Your task to perform on an android device: When is my next meeting? Image 0: 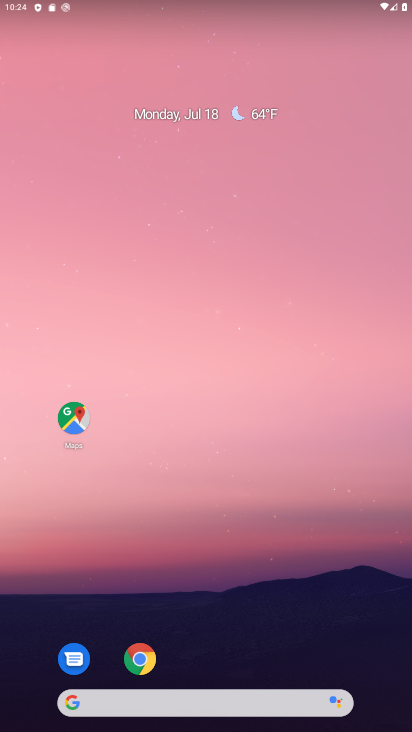
Step 0: drag from (206, 661) to (205, 142)
Your task to perform on an android device: When is my next meeting? Image 1: 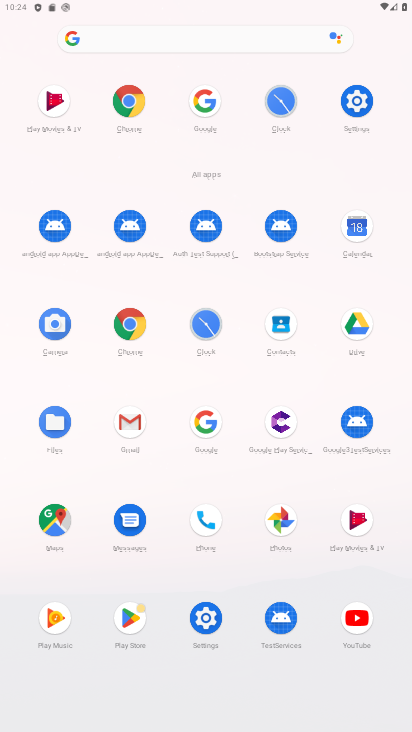
Step 1: click (359, 223)
Your task to perform on an android device: When is my next meeting? Image 2: 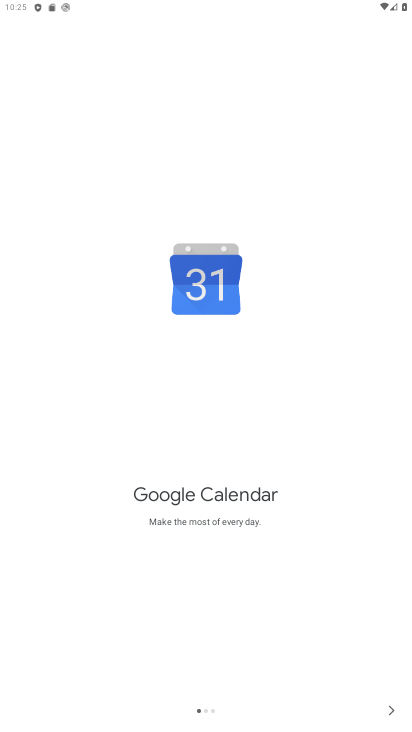
Step 2: click (387, 713)
Your task to perform on an android device: When is my next meeting? Image 3: 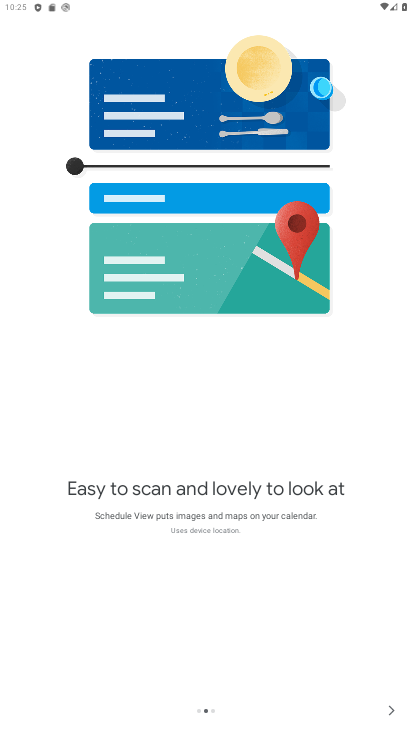
Step 3: click (387, 713)
Your task to perform on an android device: When is my next meeting? Image 4: 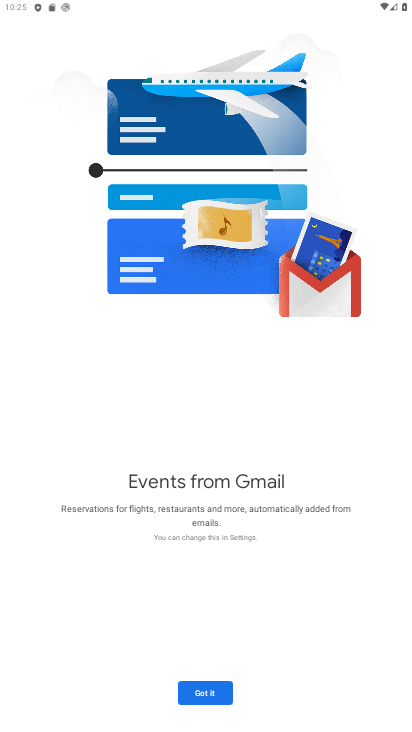
Step 4: click (208, 696)
Your task to perform on an android device: When is my next meeting? Image 5: 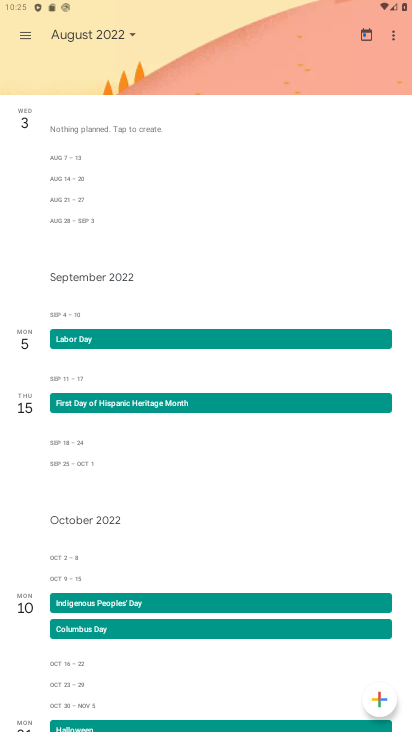
Step 5: click (115, 35)
Your task to perform on an android device: When is my next meeting? Image 6: 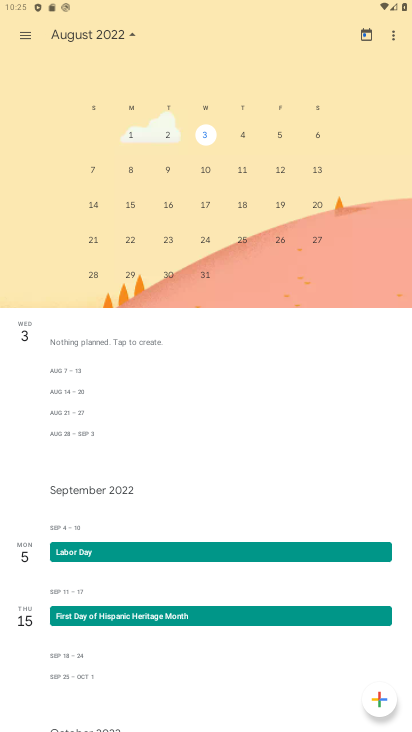
Step 6: drag from (51, 262) to (410, 242)
Your task to perform on an android device: When is my next meeting? Image 7: 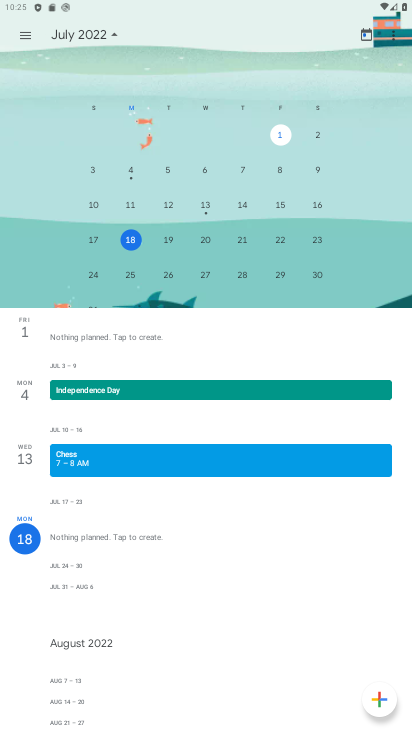
Step 7: click (209, 244)
Your task to perform on an android device: When is my next meeting? Image 8: 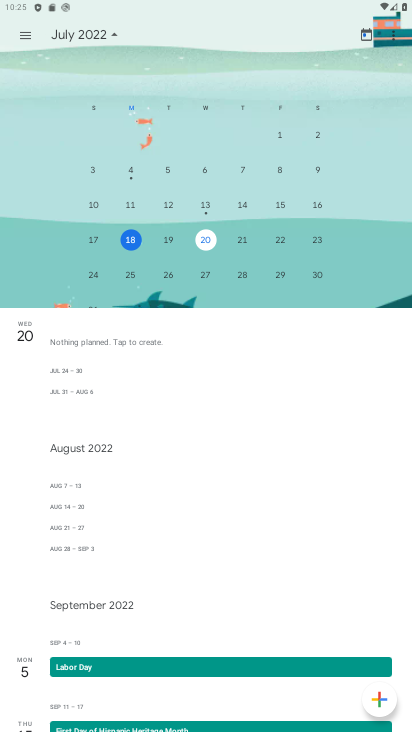
Step 8: task complete